Your task to perform on an android device: turn off smart reply in the gmail app Image 0: 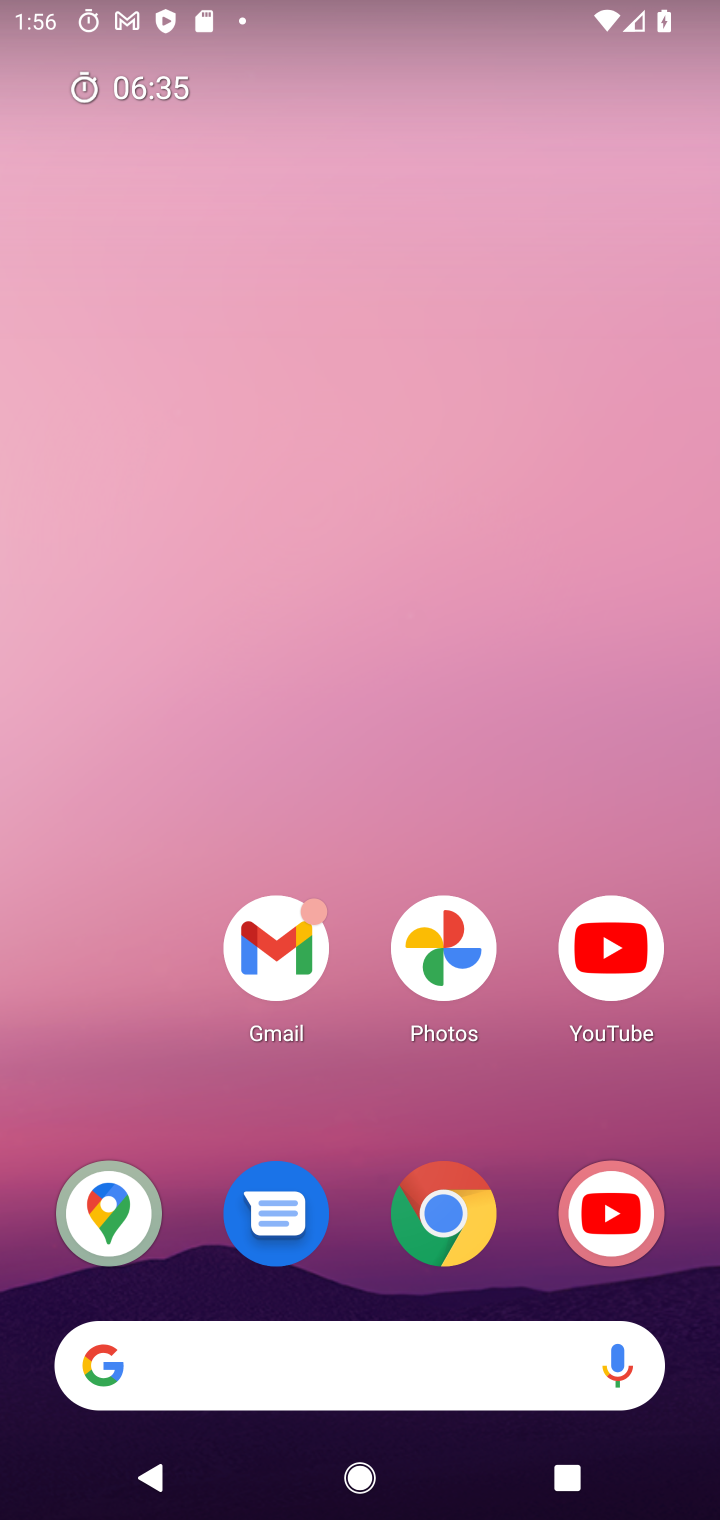
Step 0: press home button
Your task to perform on an android device: turn off smart reply in the gmail app Image 1: 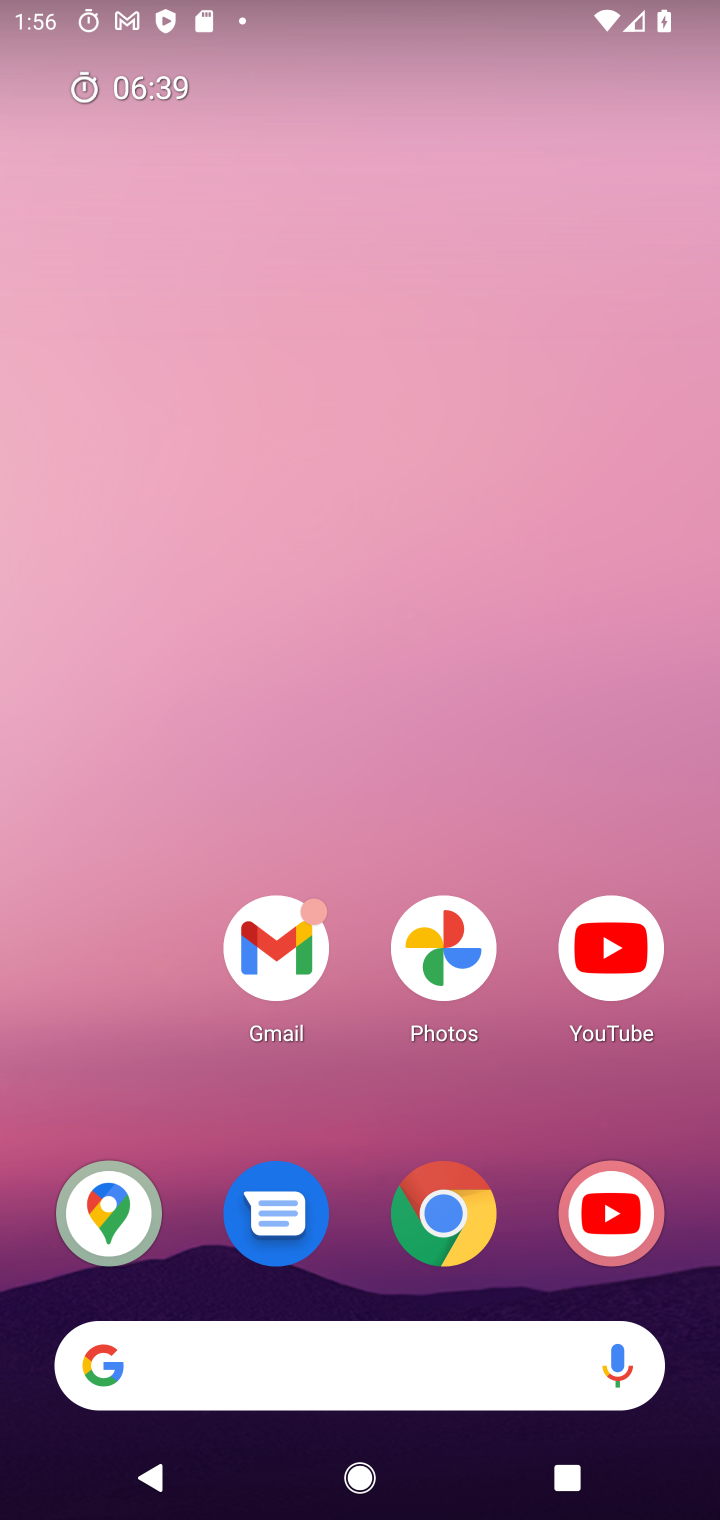
Step 1: drag from (422, 800) to (406, 22)
Your task to perform on an android device: turn off smart reply in the gmail app Image 2: 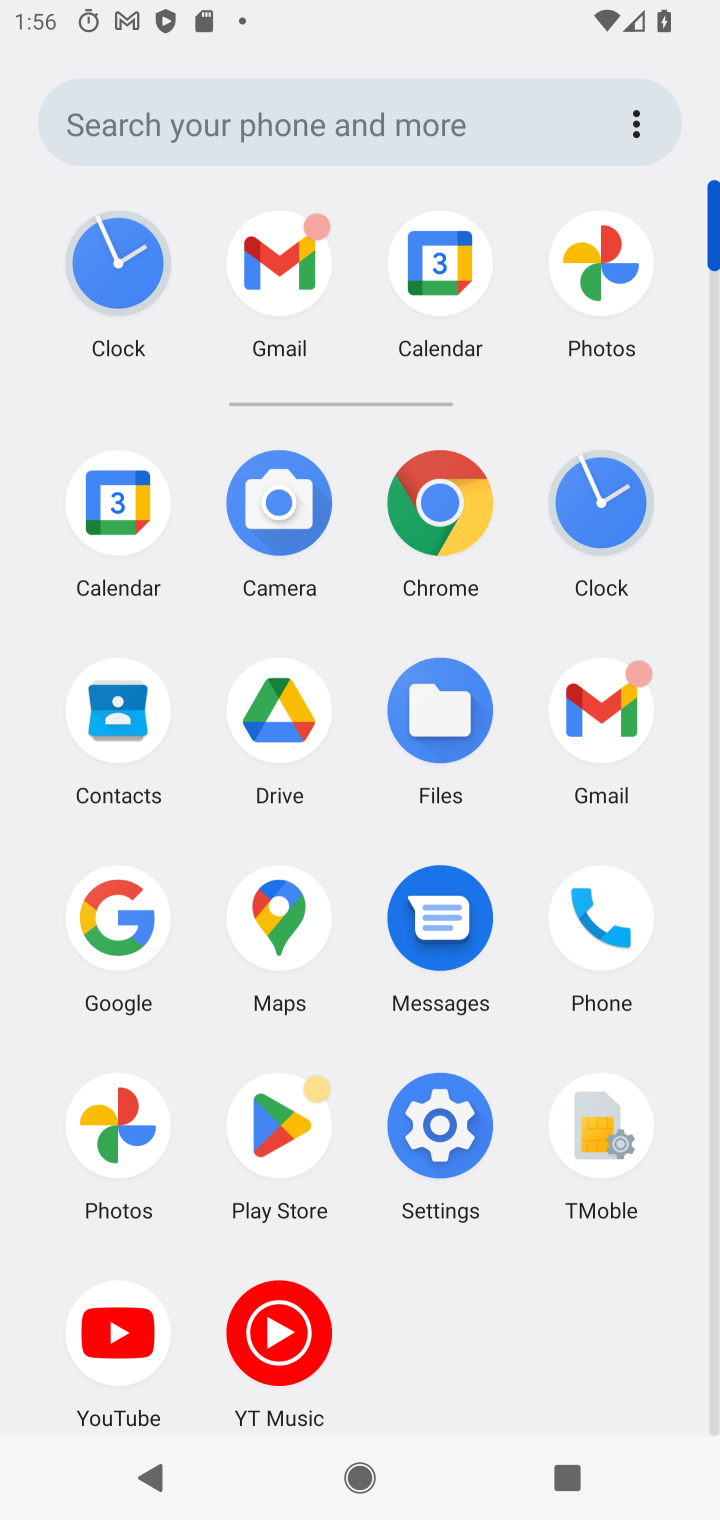
Step 2: click (592, 731)
Your task to perform on an android device: turn off smart reply in the gmail app Image 3: 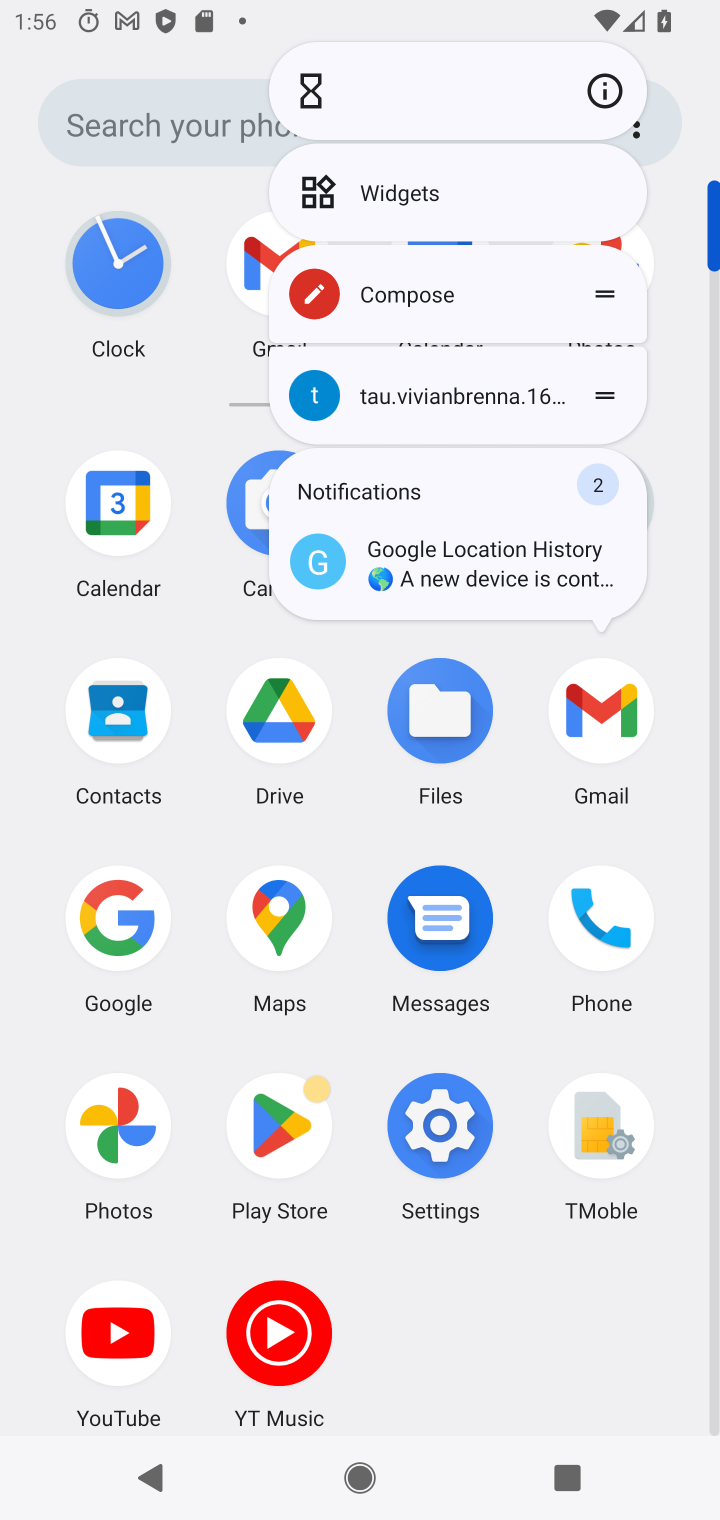
Step 3: click (592, 731)
Your task to perform on an android device: turn off smart reply in the gmail app Image 4: 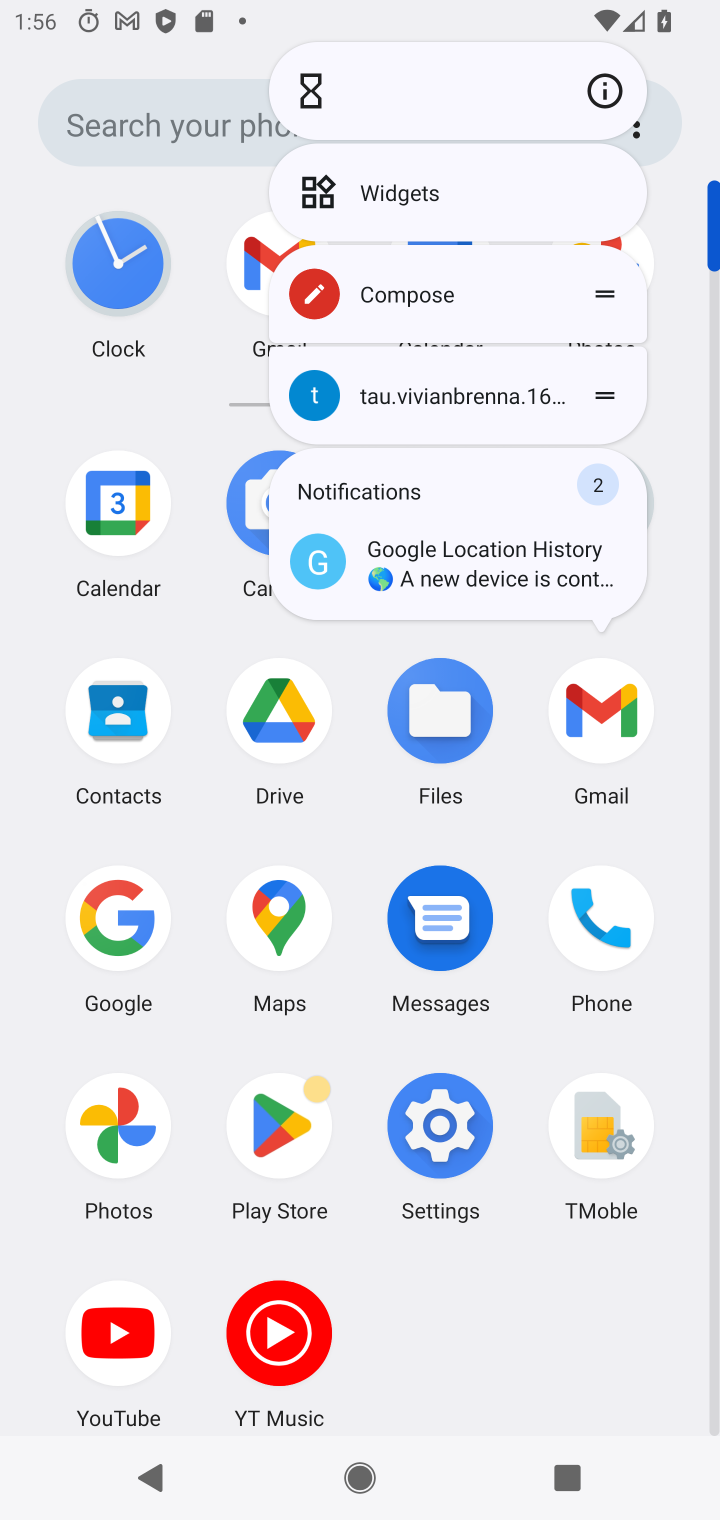
Step 4: click (587, 740)
Your task to perform on an android device: turn off smart reply in the gmail app Image 5: 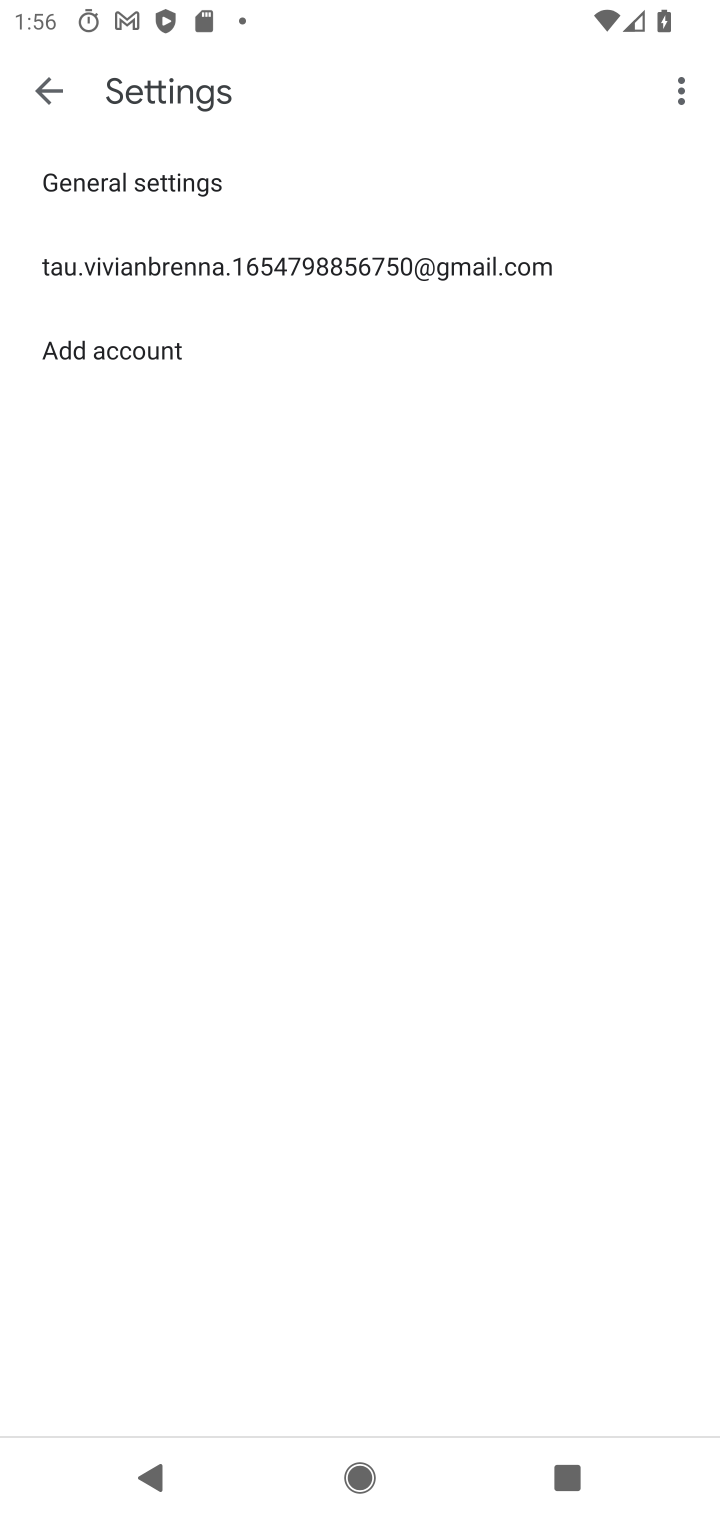
Step 5: click (162, 259)
Your task to perform on an android device: turn off smart reply in the gmail app Image 6: 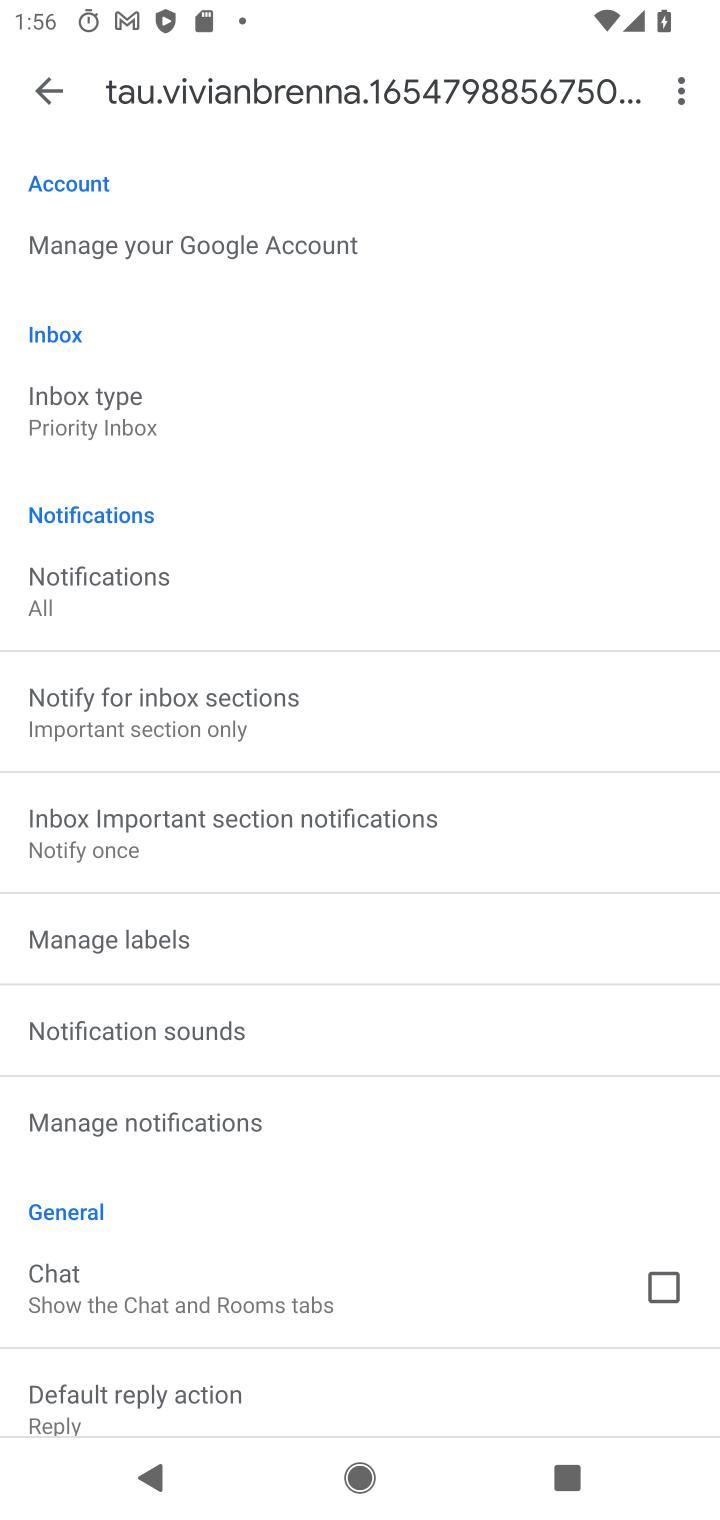
Step 6: drag from (351, 1173) to (495, 224)
Your task to perform on an android device: turn off smart reply in the gmail app Image 7: 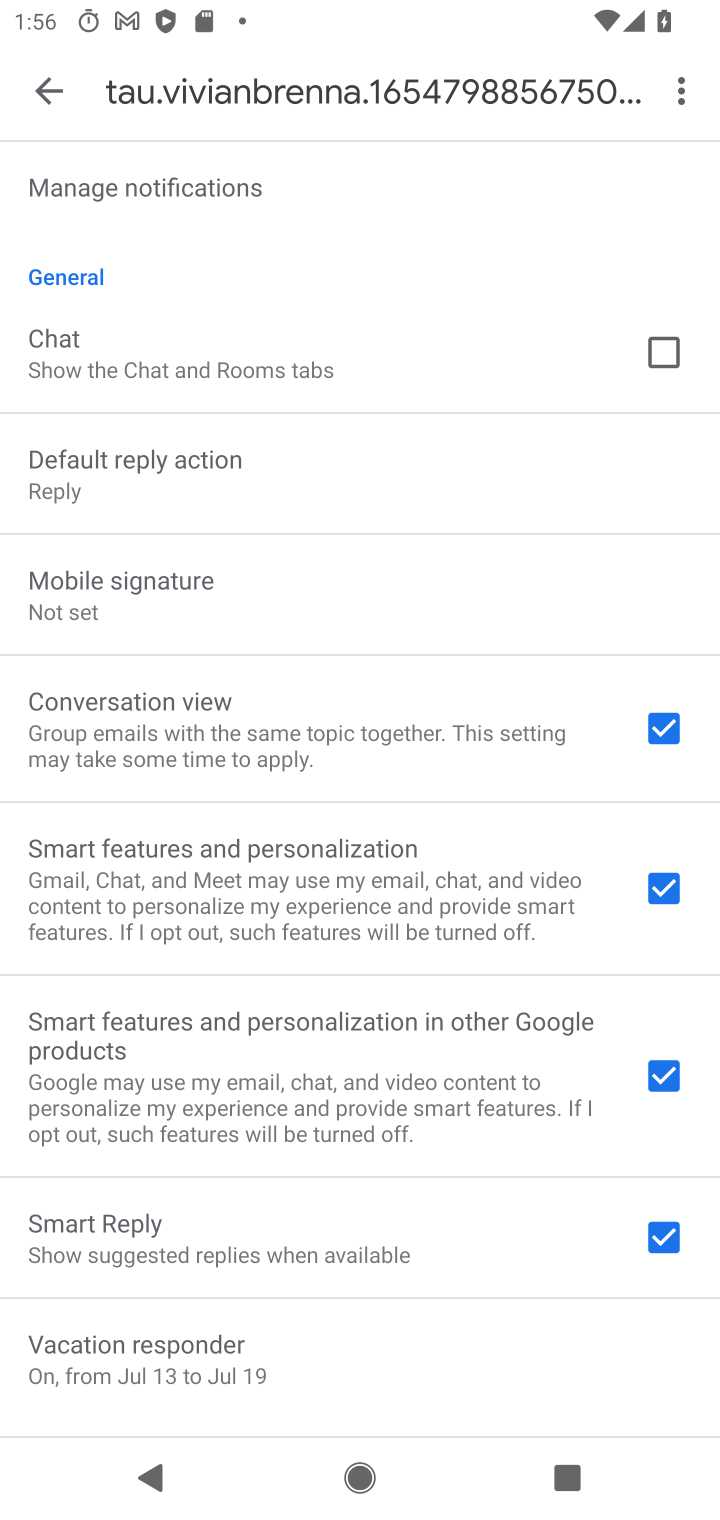
Step 7: click (655, 1228)
Your task to perform on an android device: turn off smart reply in the gmail app Image 8: 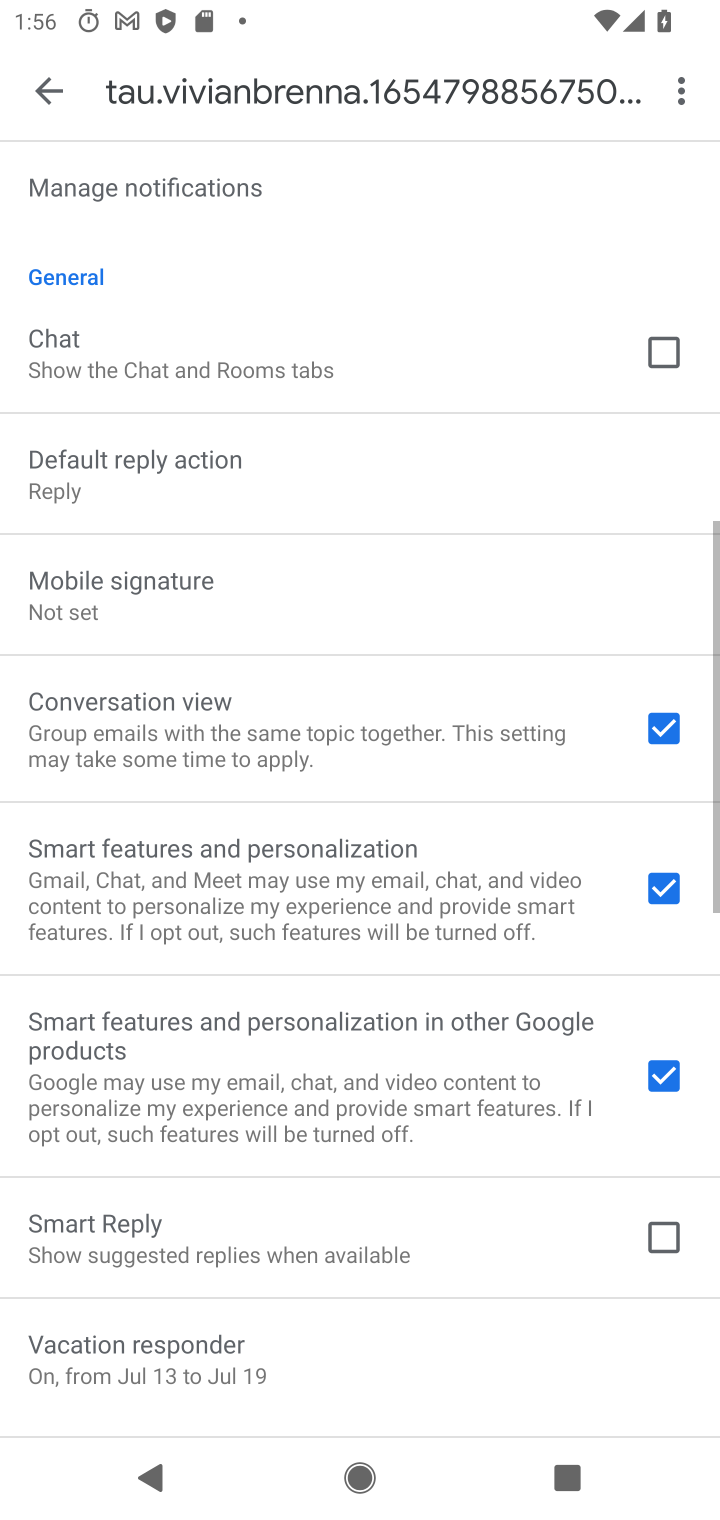
Step 8: task complete